Your task to perform on an android device: Open notification settings Image 0: 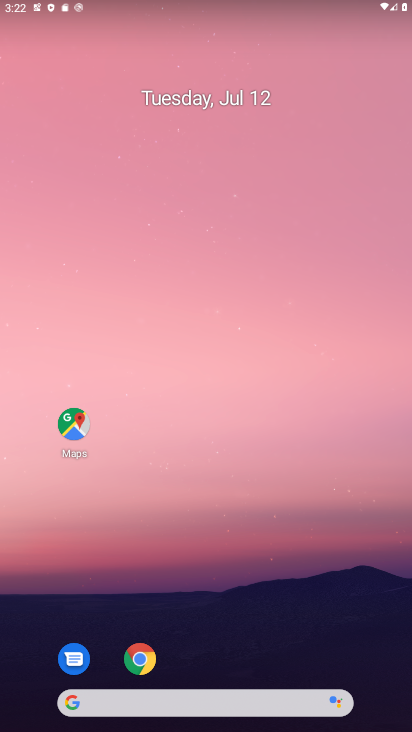
Step 0: drag from (223, 728) to (192, 45)
Your task to perform on an android device: Open notification settings Image 1: 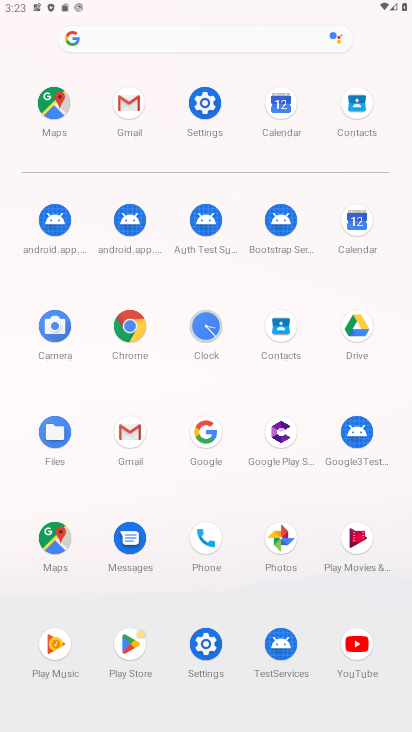
Step 1: click (205, 94)
Your task to perform on an android device: Open notification settings Image 2: 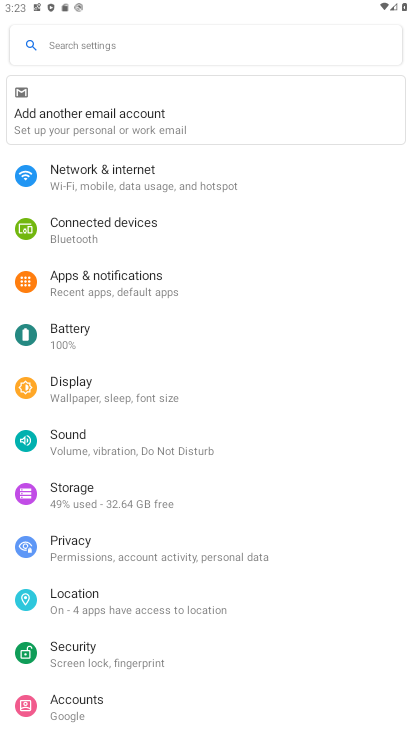
Step 2: click (114, 276)
Your task to perform on an android device: Open notification settings Image 3: 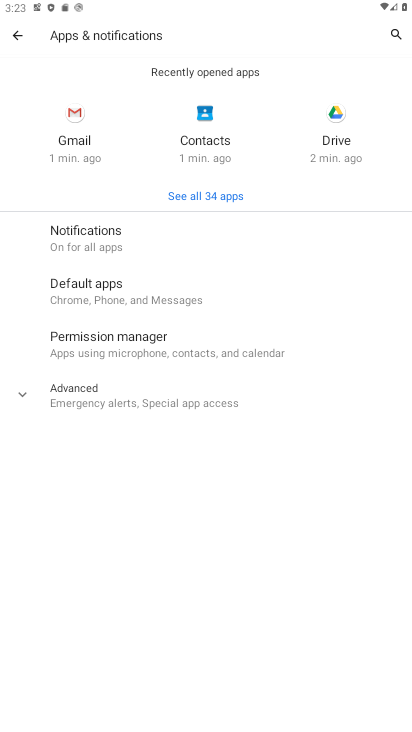
Step 3: click (70, 231)
Your task to perform on an android device: Open notification settings Image 4: 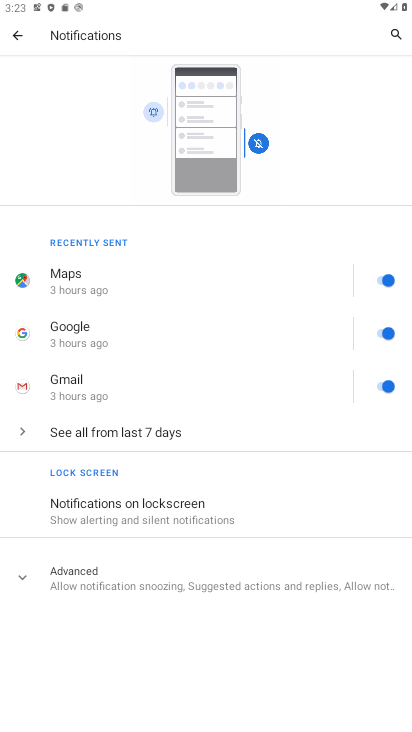
Step 4: task complete